Your task to perform on an android device: open a new tab in the chrome app Image 0: 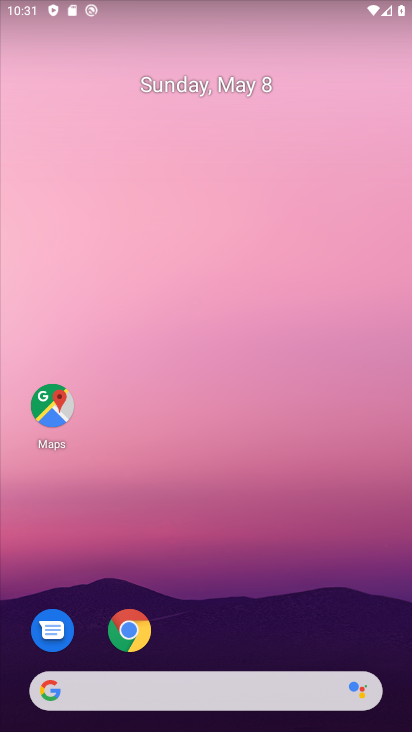
Step 0: click (131, 639)
Your task to perform on an android device: open a new tab in the chrome app Image 1: 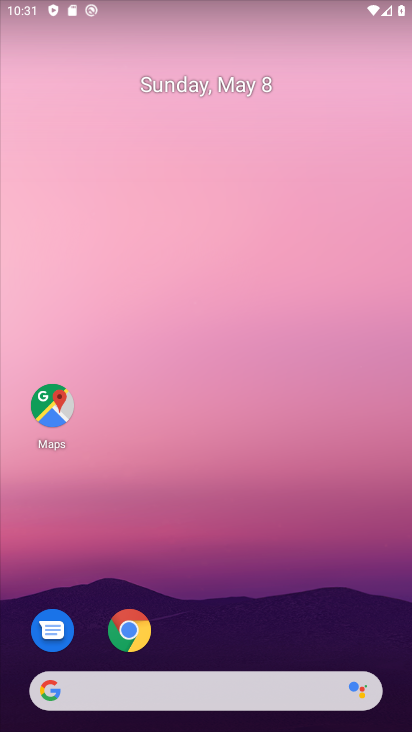
Step 1: click (131, 639)
Your task to perform on an android device: open a new tab in the chrome app Image 2: 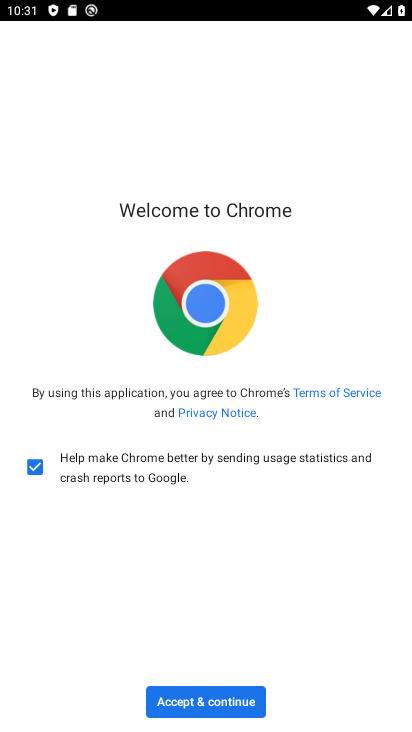
Step 2: click (217, 706)
Your task to perform on an android device: open a new tab in the chrome app Image 3: 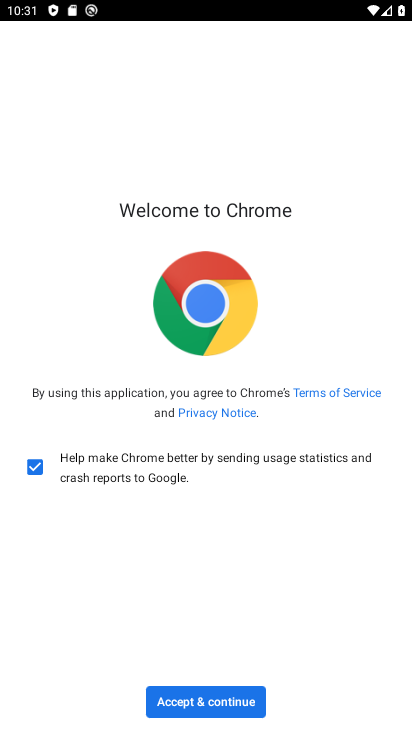
Step 3: click (217, 706)
Your task to perform on an android device: open a new tab in the chrome app Image 4: 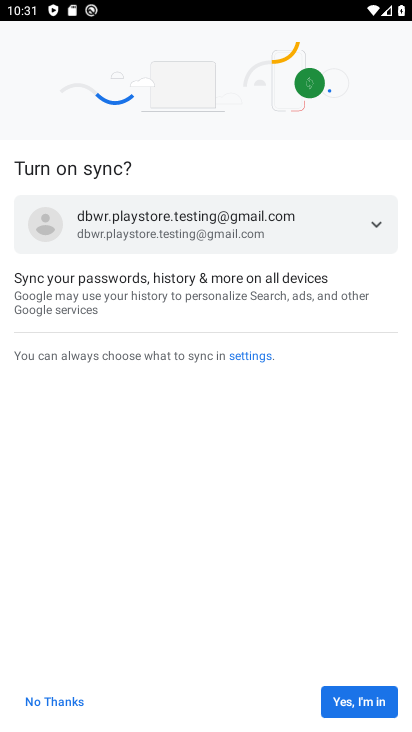
Step 4: click (375, 698)
Your task to perform on an android device: open a new tab in the chrome app Image 5: 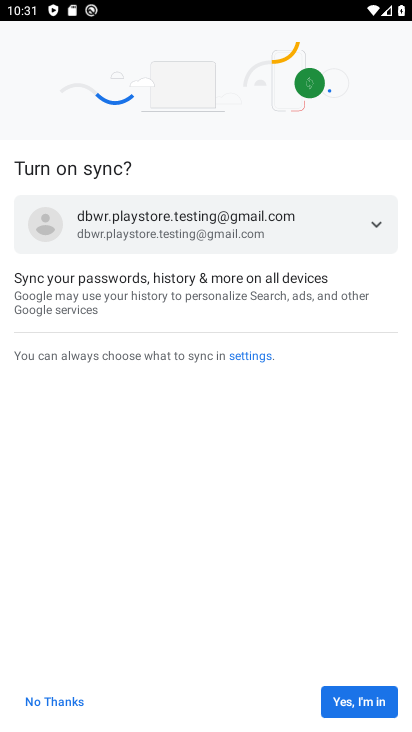
Step 5: click (375, 698)
Your task to perform on an android device: open a new tab in the chrome app Image 6: 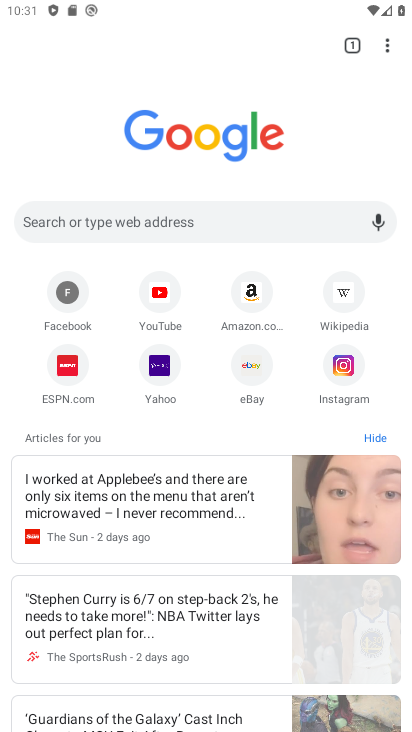
Step 6: click (388, 45)
Your task to perform on an android device: open a new tab in the chrome app Image 7: 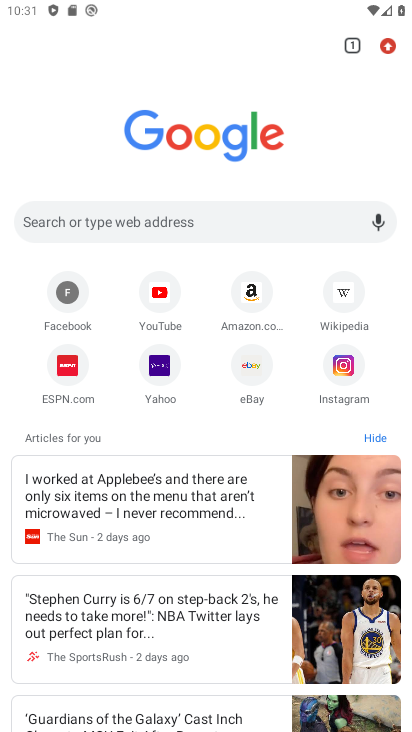
Step 7: task complete